Your task to perform on an android device: delete browsing data in the chrome app Image 0: 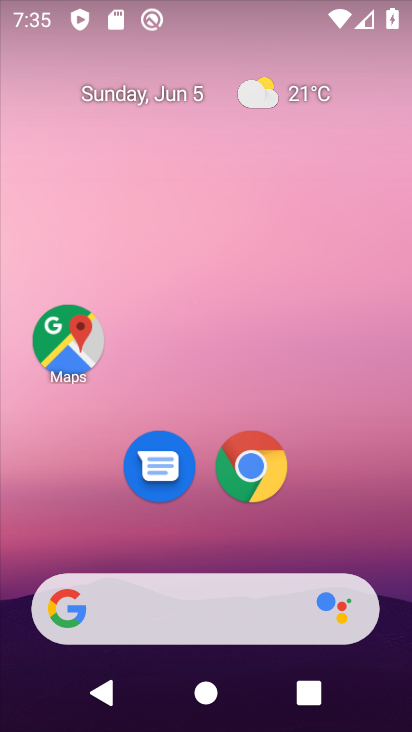
Step 0: click (239, 474)
Your task to perform on an android device: delete browsing data in the chrome app Image 1: 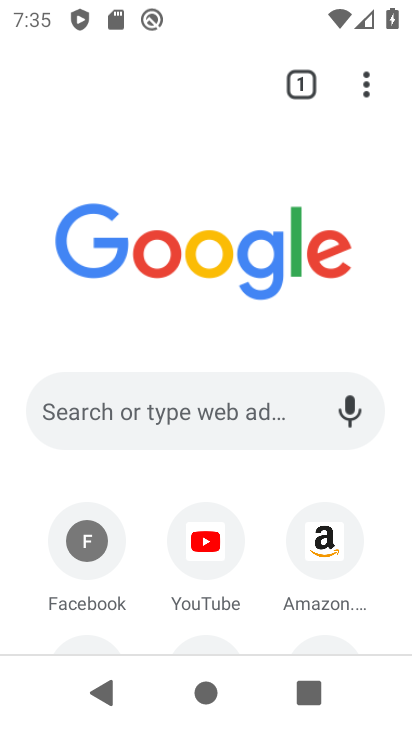
Step 1: drag from (364, 76) to (97, 482)
Your task to perform on an android device: delete browsing data in the chrome app Image 2: 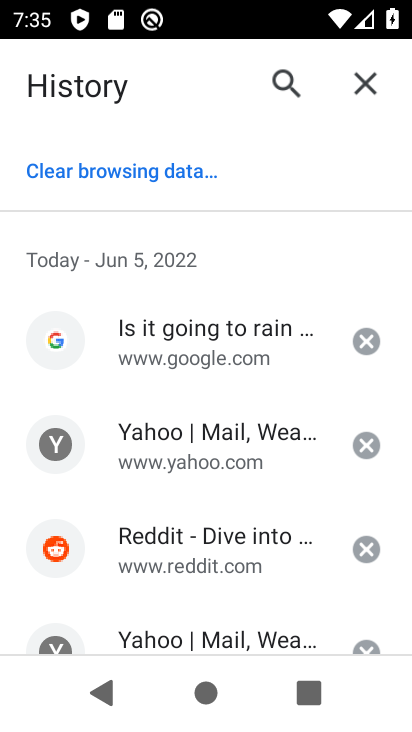
Step 2: click (132, 178)
Your task to perform on an android device: delete browsing data in the chrome app Image 3: 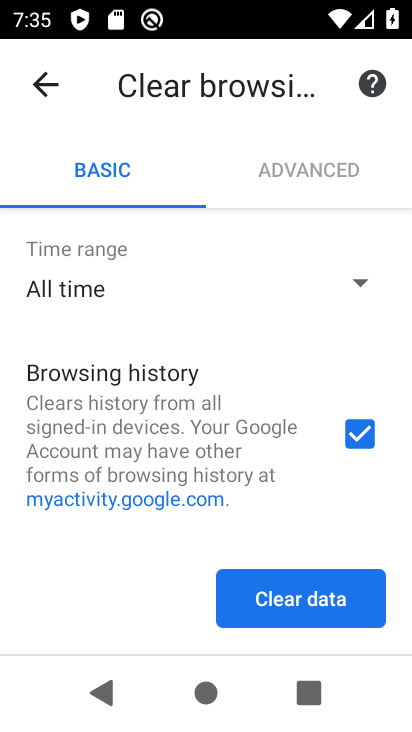
Step 3: click (320, 617)
Your task to perform on an android device: delete browsing data in the chrome app Image 4: 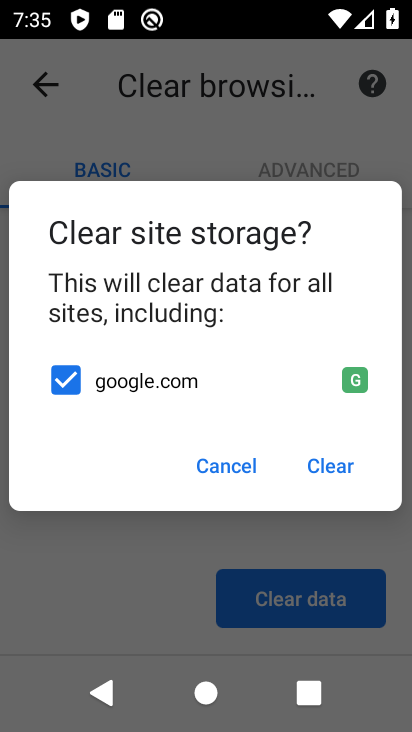
Step 4: click (325, 468)
Your task to perform on an android device: delete browsing data in the chrome app Image 5: 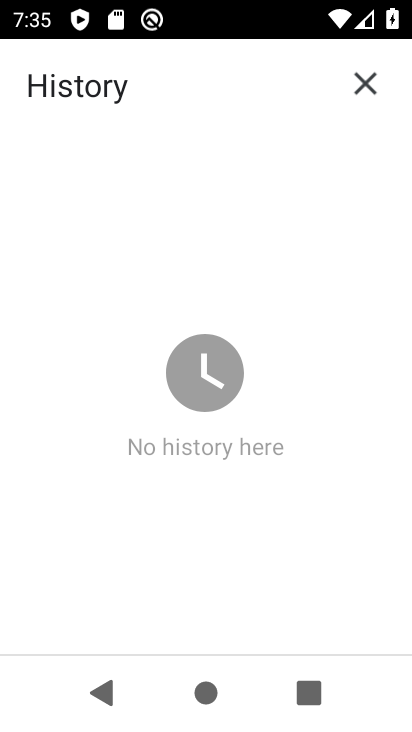
Step 5: task complete